Your task to perform on an android device: Go to Google Image 0: 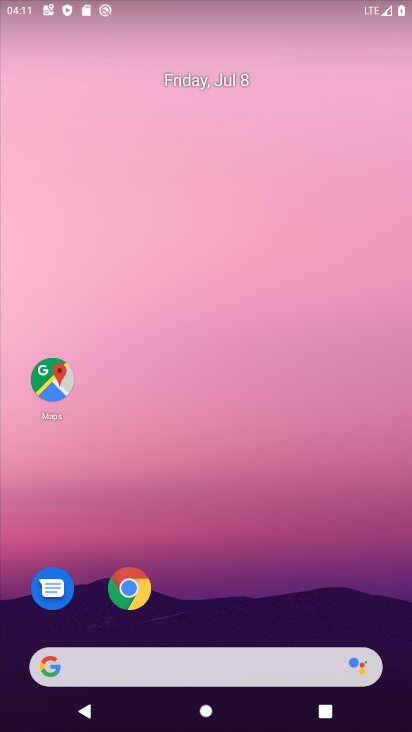
Step 0: drag from (217, 515) to (256, 100)
Your task to perform on an android device: Go to Google Image 1: 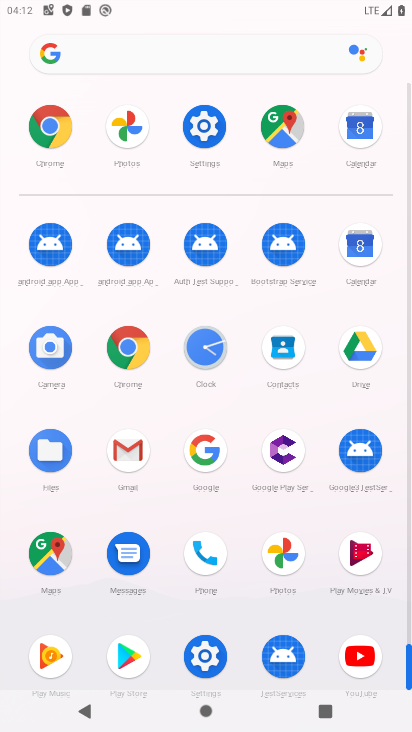
Step 1: click (210, 458)
Your task to perform on an android device: Go to Google Image 2: 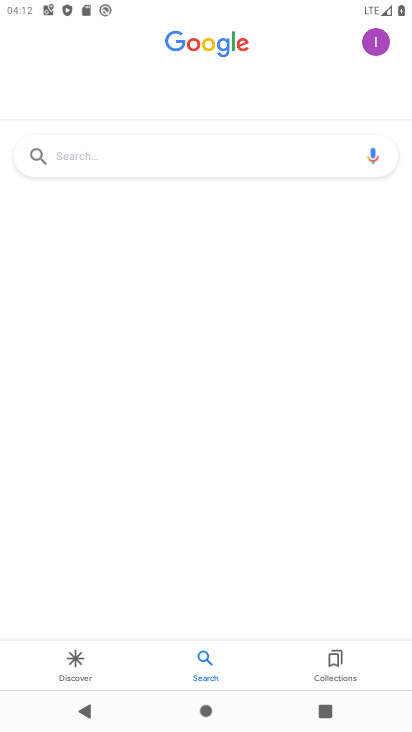
Step 2: task complete